Your task to perform on an android device: What's on my calendar today? Image 0: 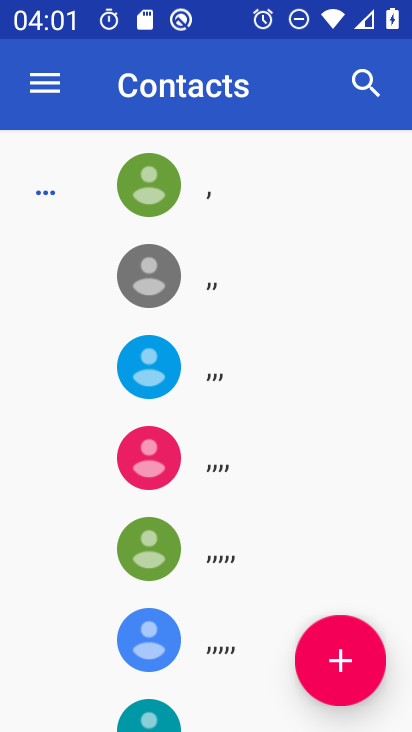
Step 0: press home button
Your task to perform on an android device: What's on my calendar today? Image 1: 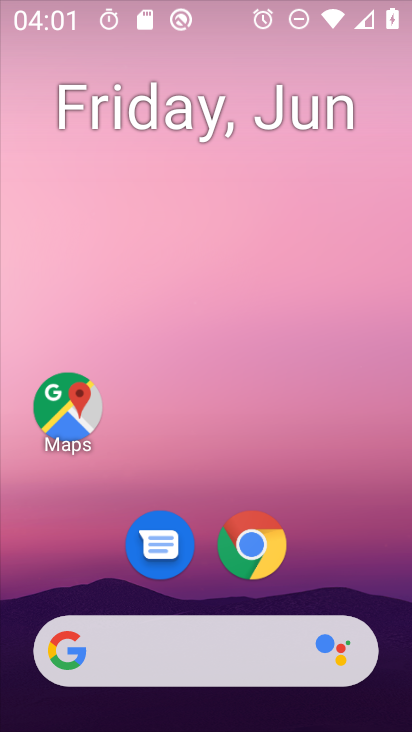
Step 1: drag from (354, 588) to (231, 9)
Your task to perform on an android device: What's on my calendar today? Image 2: 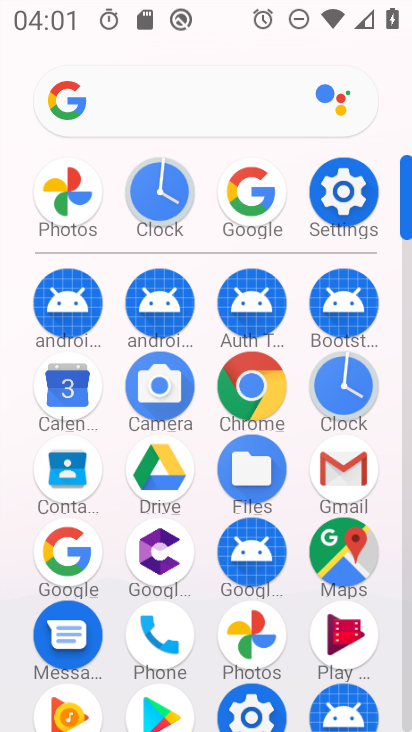
Step 2: click (61, 395)
Your task to perform on an android device: What's on my calendar today? Image 3: 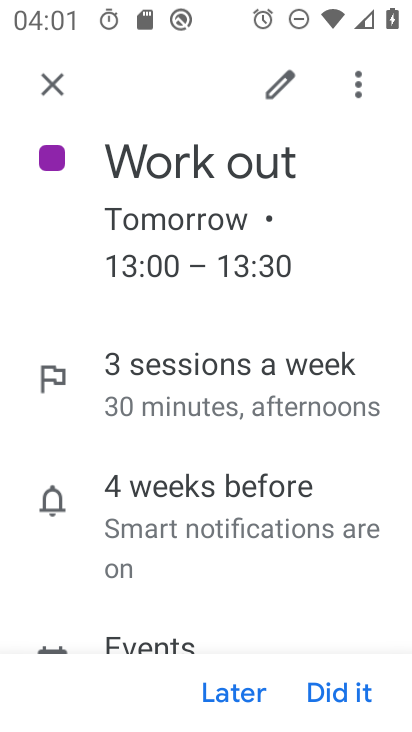
Step 3: click (50, 84)
Your task to perform on an android device: What's on my calendar today? Image 4: 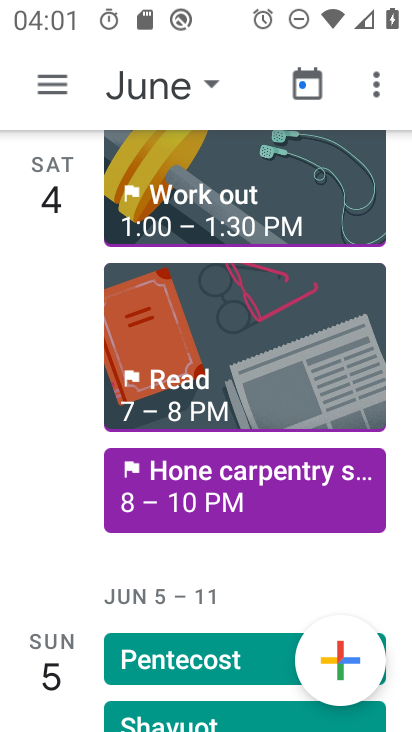
Step 4: click (211, 88)
Your task to perform on an android device: What's on my calendar today? Image 5: 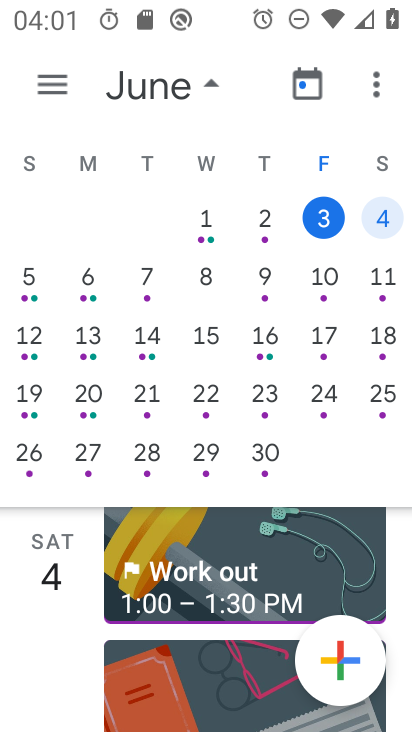
Step 5: click (326, 215)
Your task to perform on an android device: What's on my calendar today? Image 6: 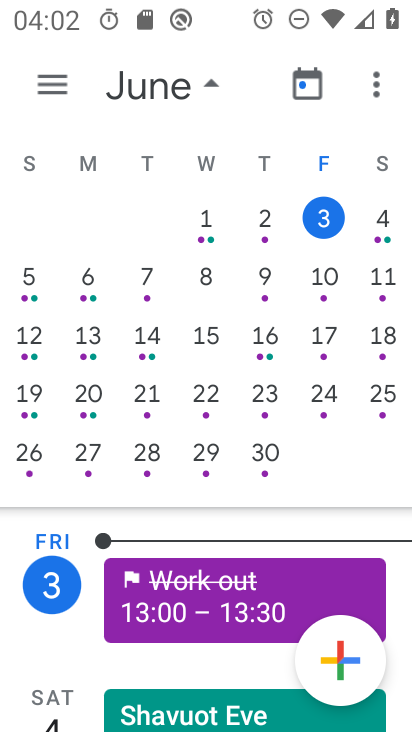
Step 6: task complete